Your task to perform on an android device: Open Youtube and go to the subscriptions tab Image 0: 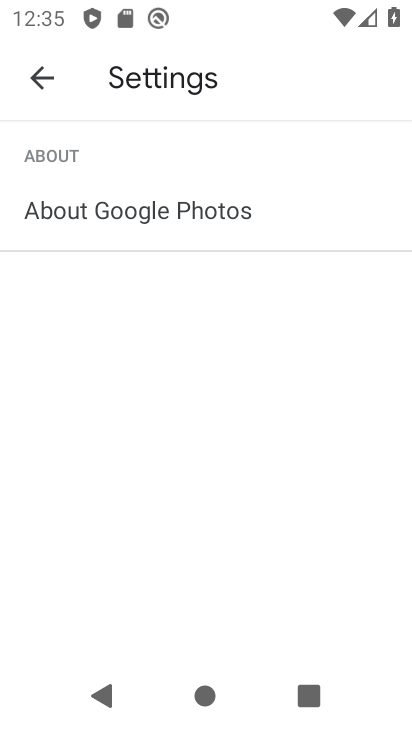
Step 0: press home button
Your task to perform on an android device: Open Youtube and go to the subscriptions tab Image 1: 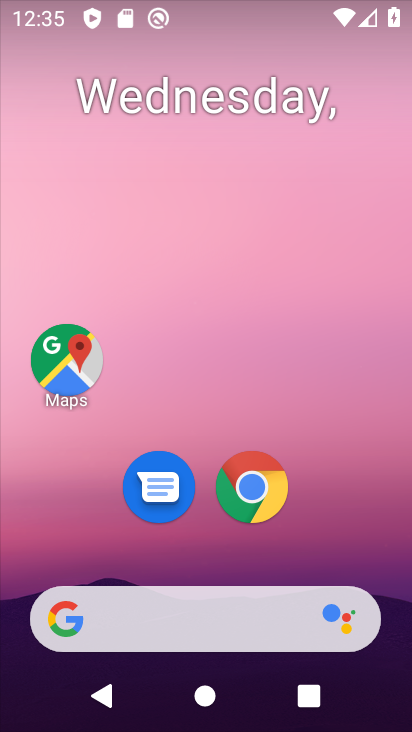
Step 1: drag from (299, 561) to (307, 71)
Your task to perform on an android device: Open Youtube and go to the subscriptions tab Image 2: 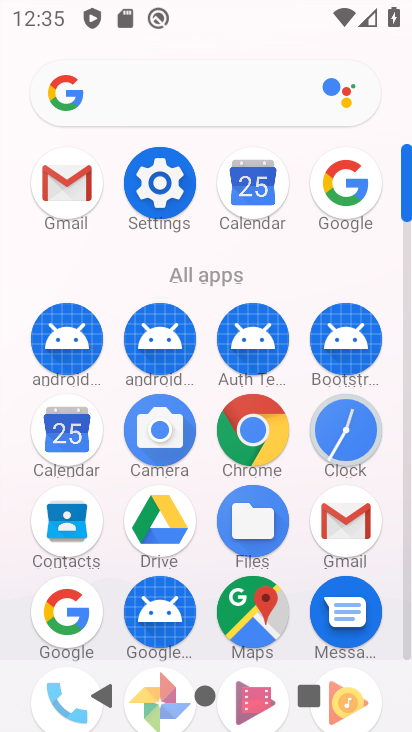
Step 2: drag from (310, 614) to (402, 256)
Your task to perform on an android device: Open Youtube and go to the subscriptions tab Image 3: 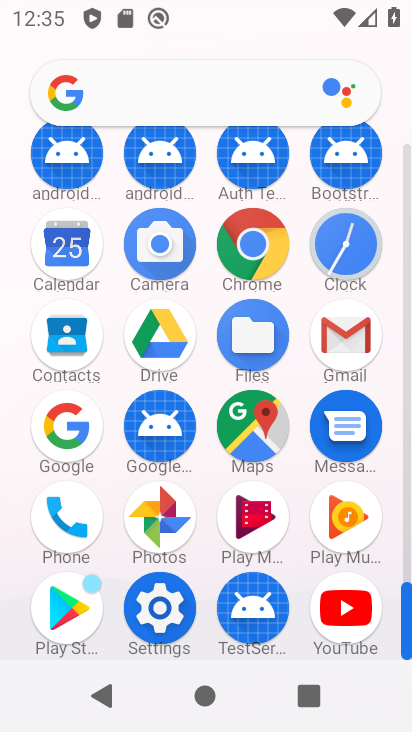
Step 3: click (333, 646)
Your task to perform on an android device: Open Youtube and go to the subscriptions tab Image 4: 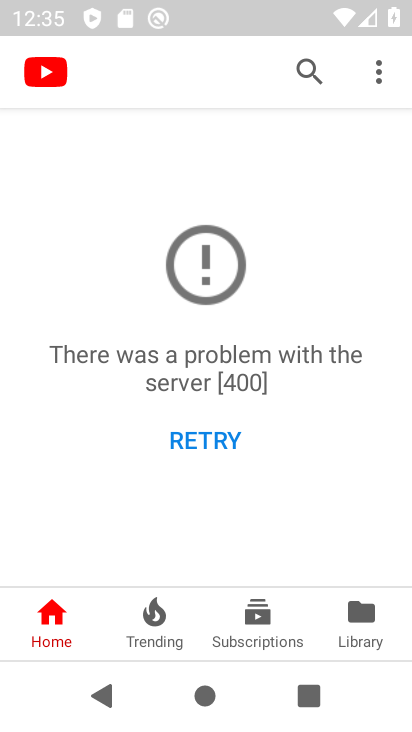
Step 4: click (271, 630)
Your task to perform on an android device: Open Youtube and go to the subscriptions tab Image 5: 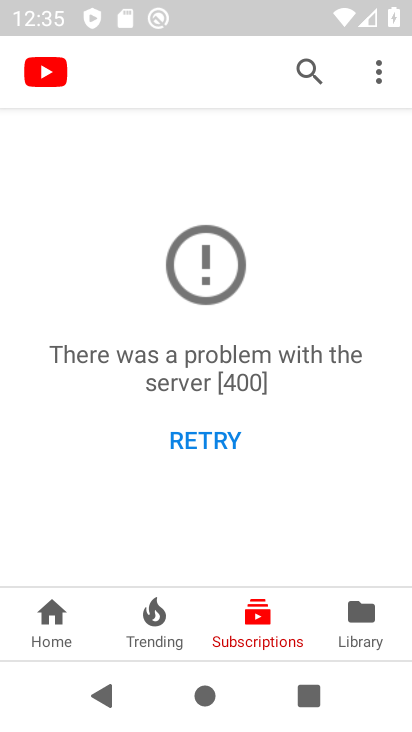
Step 5: task complete